Your task to perform on an android device: change the clock display to analog Image 0: 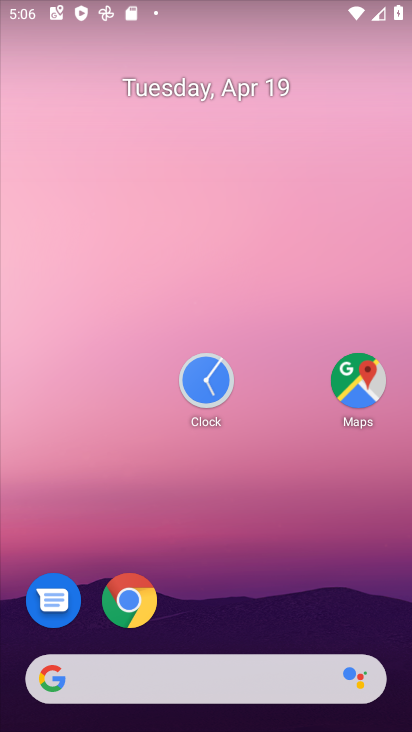
Step 0: drag from (243, 522) to (136, 22)
Your task to perform on an android device: change the clock display to analog Image 1: 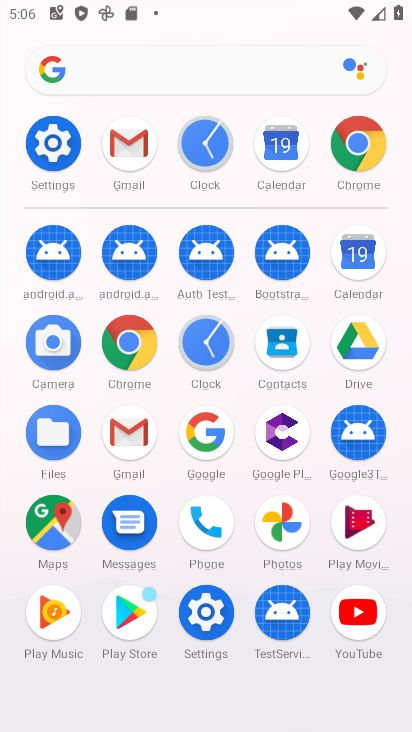
Step 1: click (194, 131)
Your task to perform on an android device: change the clock display to analog Image 2: 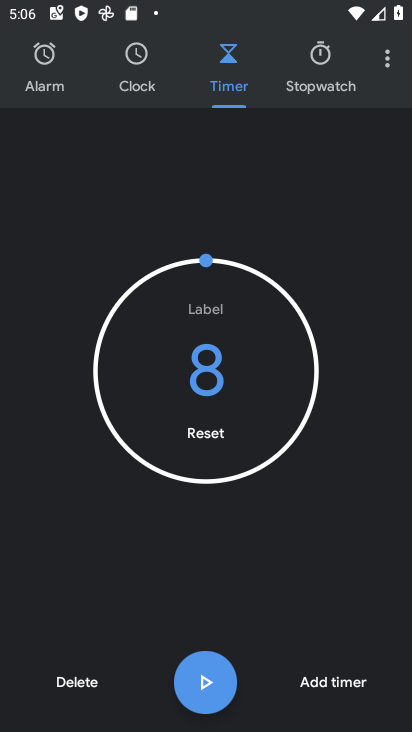
Step 2: click (377, 58)
Your task to perform on an android device: change the clock display to analog Image 3: 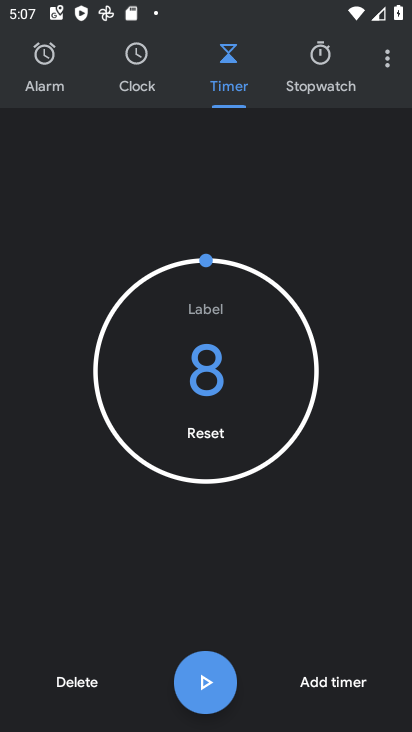
Step 3: click (384, 57)
Your task to perform on an android device: change the clock display to analog Image 4: 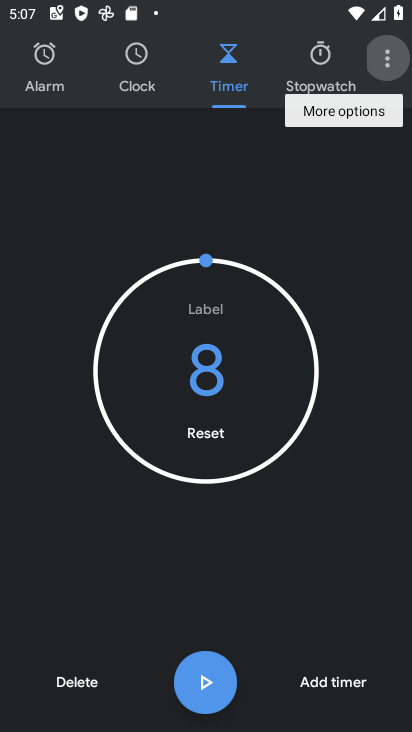
Step 4: click (384, 65)
Your task to perform on an android device: change the clock display to analog Image 5: 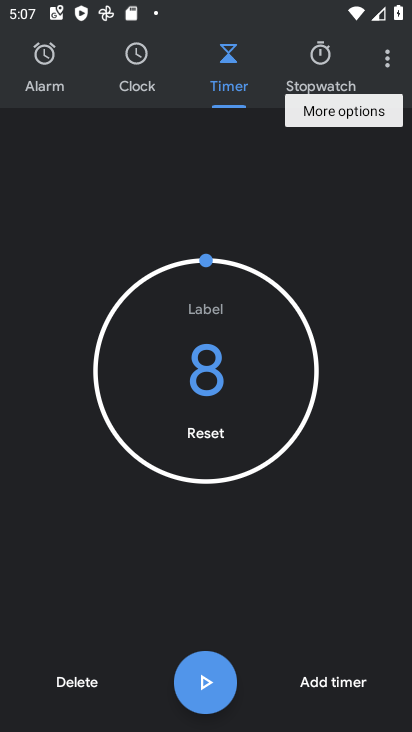
Step 5: click (384, 65)
Your task to perform on an android device: change the clock display to analog Image 6: 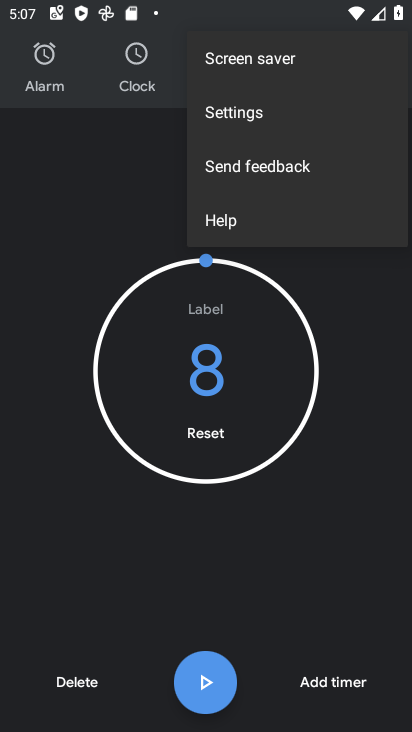
Step 6: click (250, 107)
Your task to perform on an android device: change the clock display to analog Image 7: 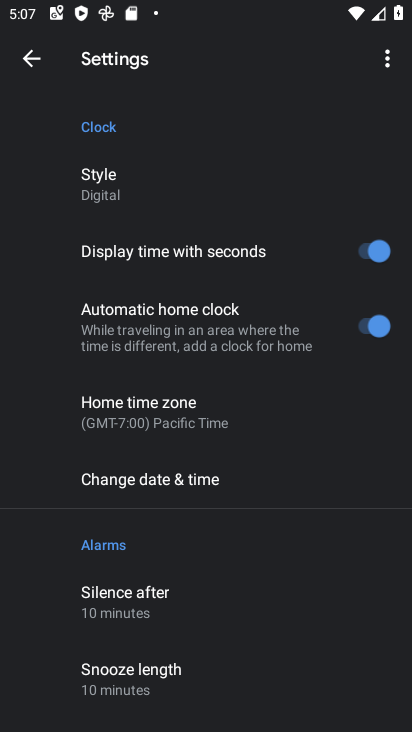
Step 7: click (104, 186)
Your task to perform on an android device: change the clock display to analog Image 8: 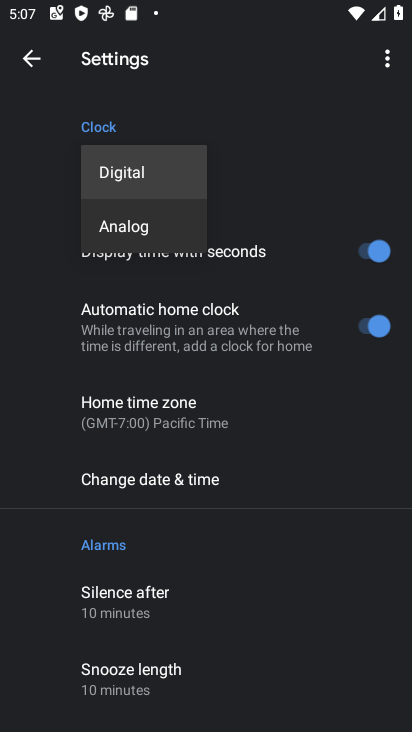
Step 8: click (125, 167)
Your task to perform on an android device: change the clock display to analog Image 9: 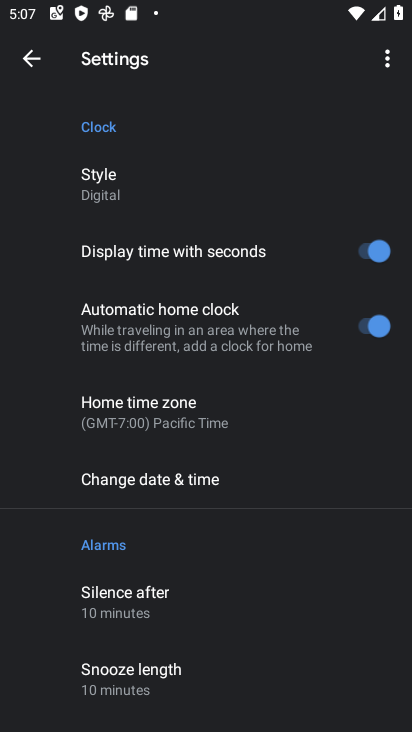
Step 9: task complete